Your task to perform on an android device: Open my contact list Image 0: 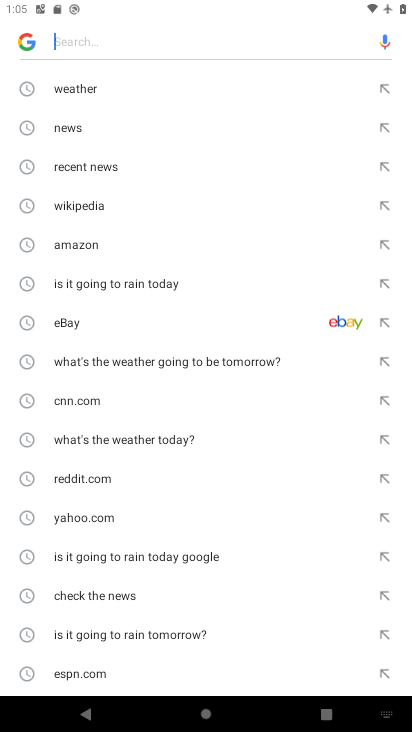
Step 0: press home button
Your task to perform on an android device: Open my contact list Image 1: 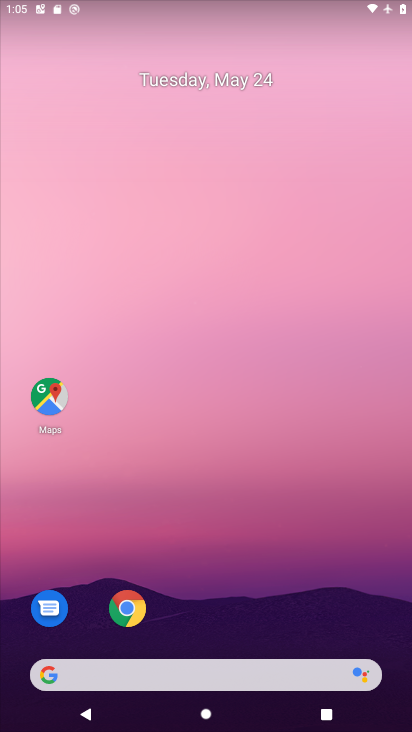
Step 1: drag from (221, 588) to (278, 91)
Your task to perform on an android device: Open my contact list Image 2: 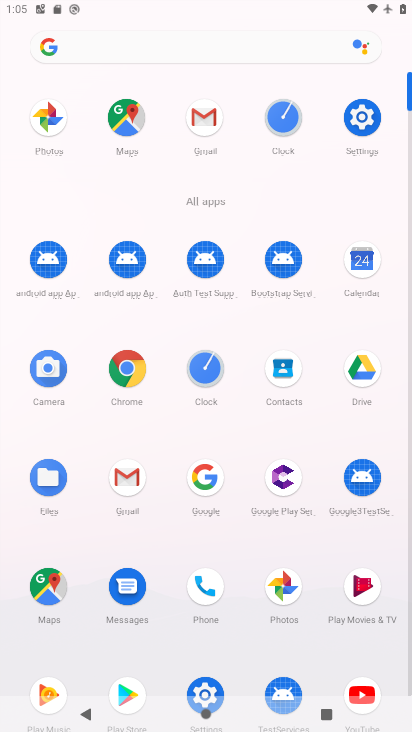
Step 2: click (297, 382)
Your task to perform on an android device: Open my contact list Image 3: 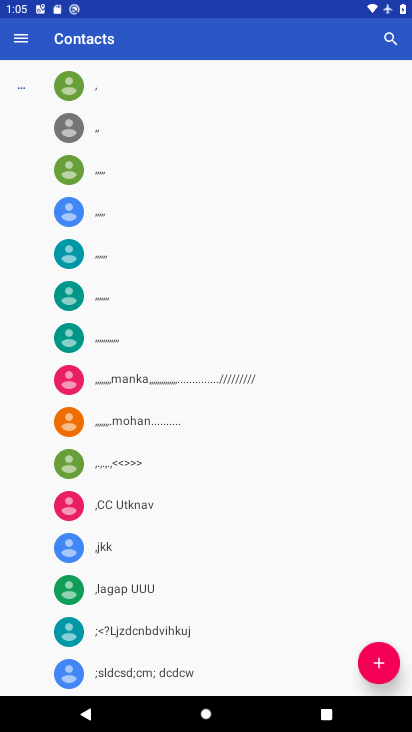
Step 3: task complete